Your task to perform on an android device: What is the news today? Image 0: 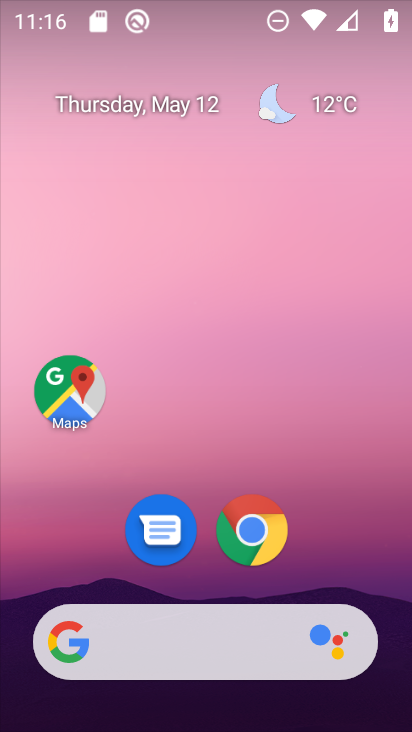
Step 0: click (79, 642)
Your task to perform on an android device: What is the news today? Image 1: 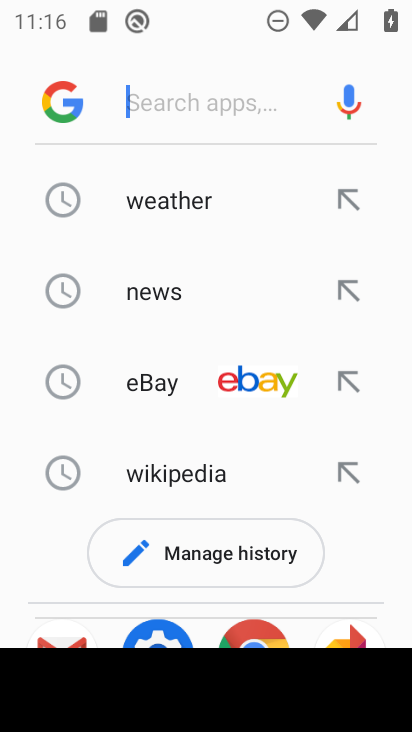
Step 1: click (160, 290)
Your task to perform on an android device: What is the news today? Image 2: 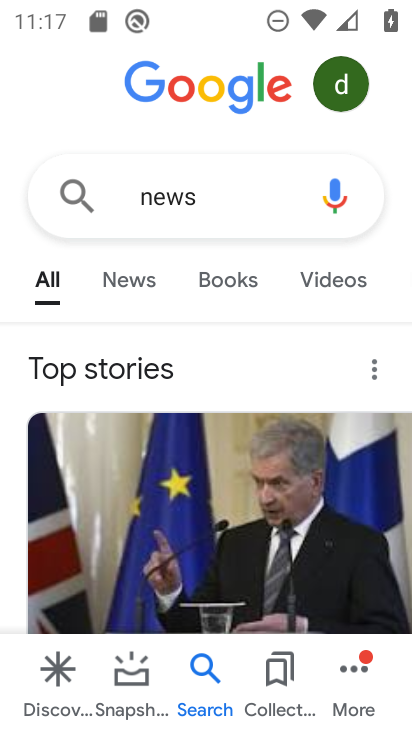
Step 2: click (143, 280)
Your task to perform on an android device: What is the news today? Image 3: 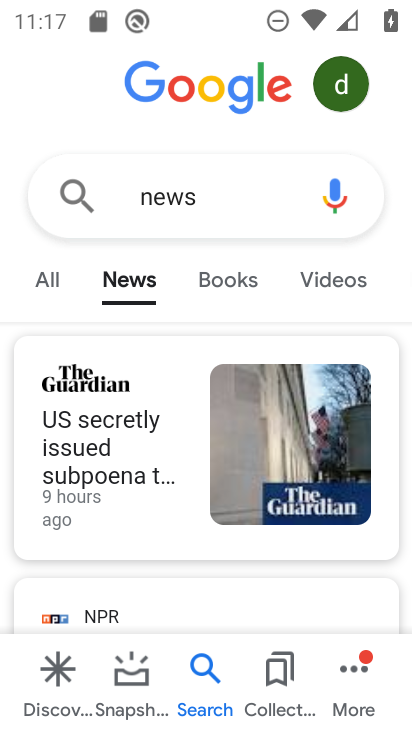
Step 3: task complete